Your task to perform on an android device: toggle javascript in the chrome app Image 0: 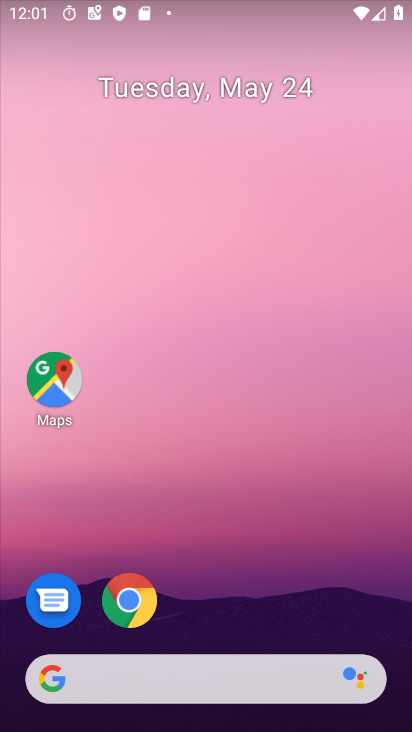
Step 0: drag from (274, 580) to (304, 138)
Your task to perform on an android device: toggle javascript in the chrome app Image 1: 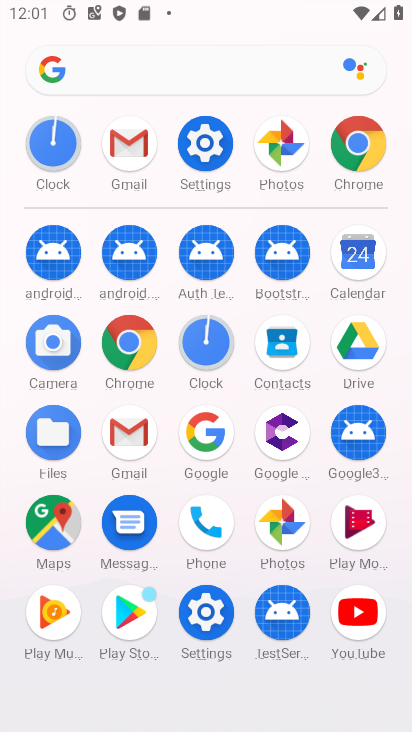
Step 1: click (128, 340)
Your task to perform on an android device: toggle javascript in the chrome app Image 2: 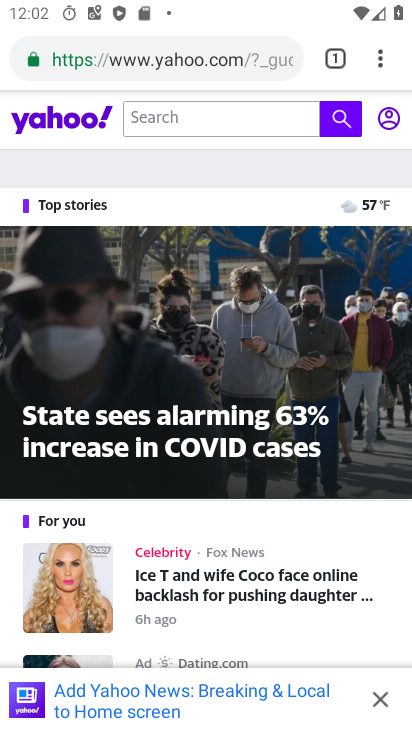
Step 2: click (381, 52)
Your task to perform on an android device: toggle javascript in the chrome app Image 3: 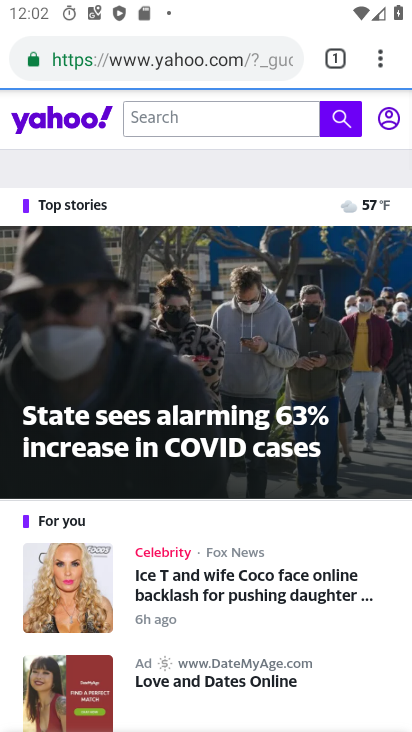
Step 3: drag from (376, 58) to (226, 618)
Your task to perform on an android device: toggle javascript in the chrome app Image 4: 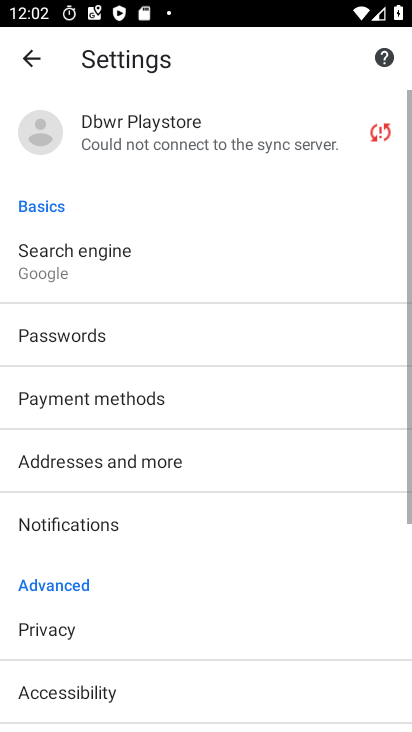
Step 4: drag from (204, 595) to (234, 158)
Your task to perform on an android device: toggle javascript in the chrome app Image 5: 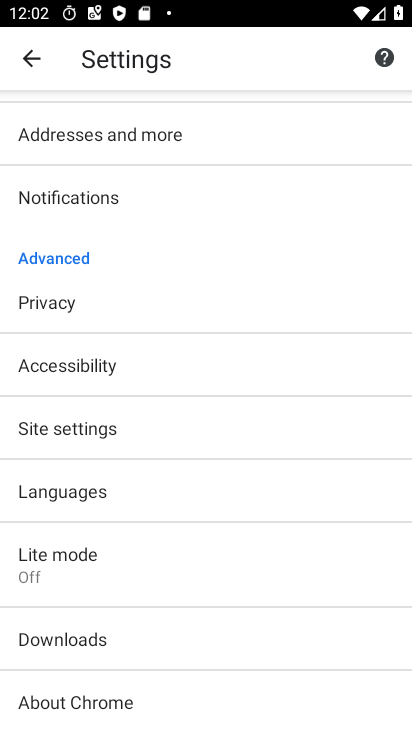
Step 5: click (112, 426)
Your task to perform on an android device: toggle javascript in the chrome app Image 6: 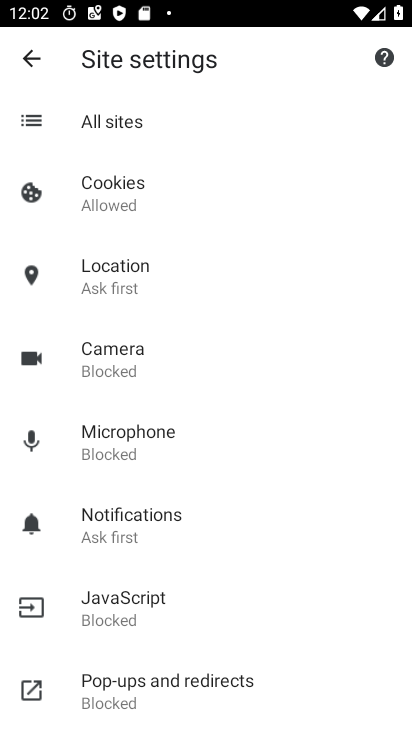
Step 6: click (162, 613)
Your task to perform on an android device: toggle javascript in the chrome app Image 7: 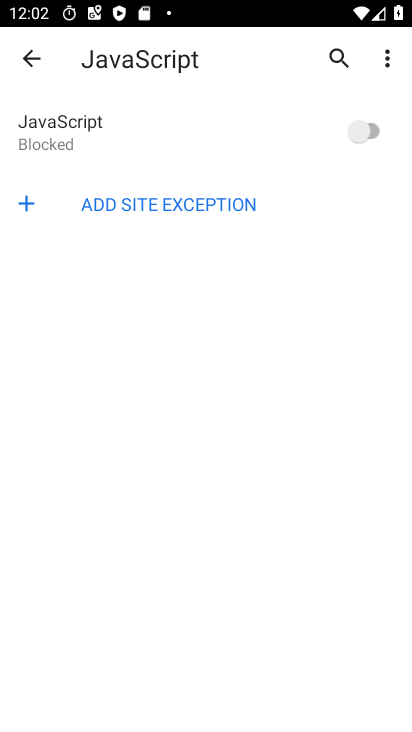
Step 7: click (360, 128)
Your task to perform on an android device: toggle javascript in the chrome app Image 8: 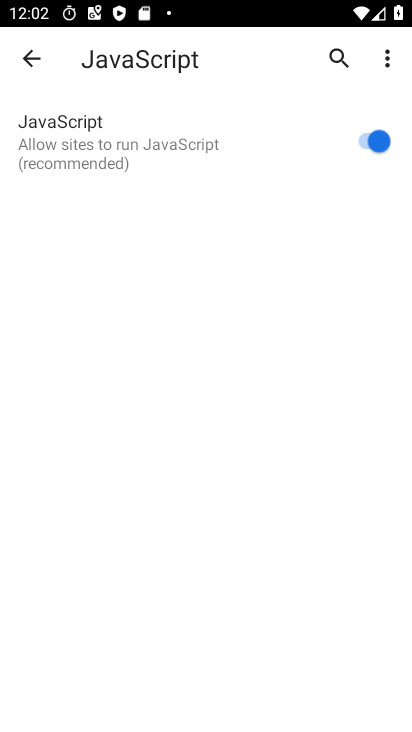
Step 8: task complete